Your task to perform on an android device: turn smart compose on in the gmail app Image 0: 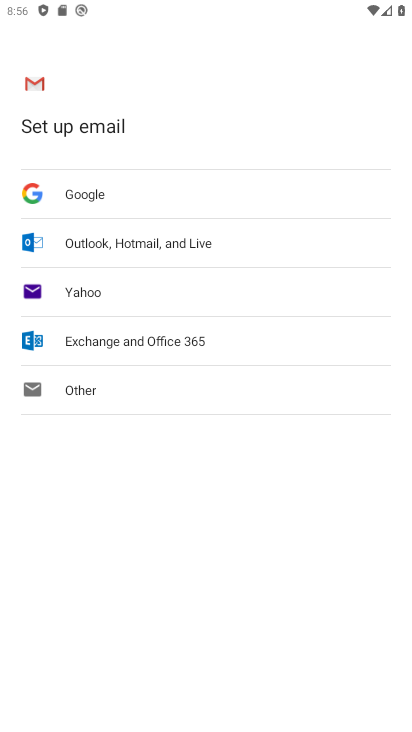
Step 0: press home button
Your task to perform on an android device: turn smart compose on in the gmail app Image 1: 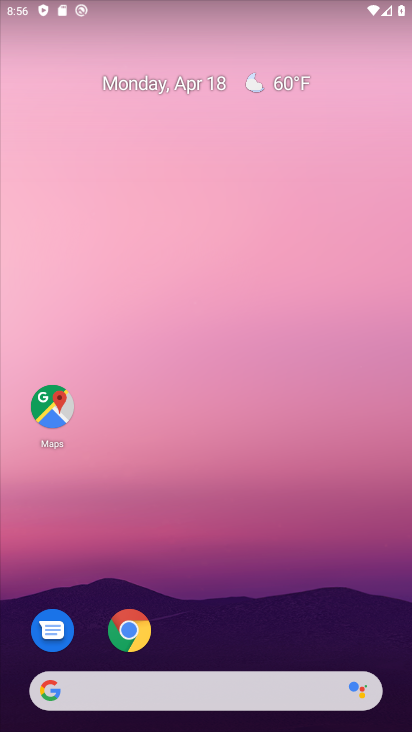
Step 1: drag from (283, 499) to (291, 140)
Your task to perform on an android device: turn smart compose on in the gmail app Image 2: 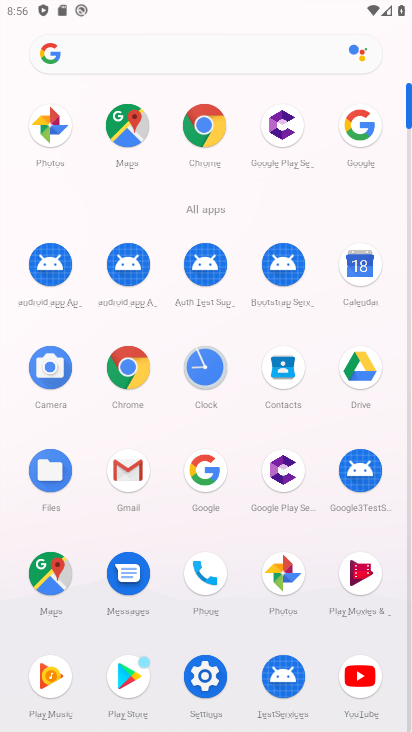
Step 2: click (135, 471)
Your task to perform on an android device: turn smart compose on in the gmail app Image 3: 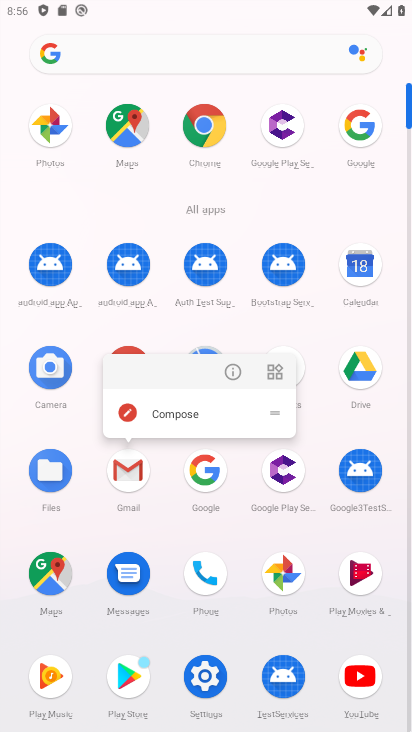
Step 3: click (128, 473)
Your task to perform on an android device: turn smart compose on in the gmail app Image 4: 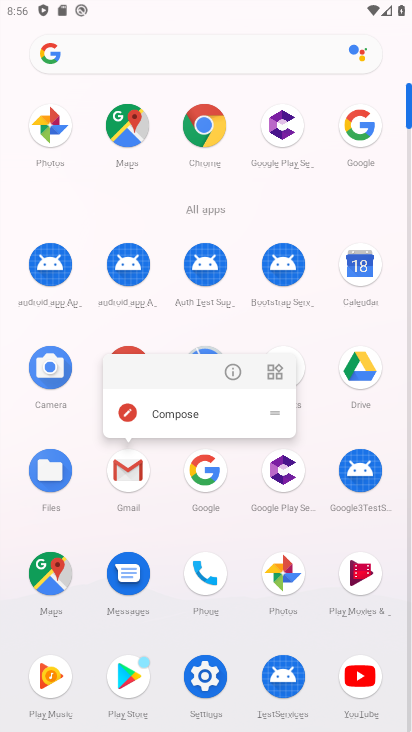
Step 4: click (132, 469)
Your task to perform on an android device: turn smart compose on in the gmail app Image 5: 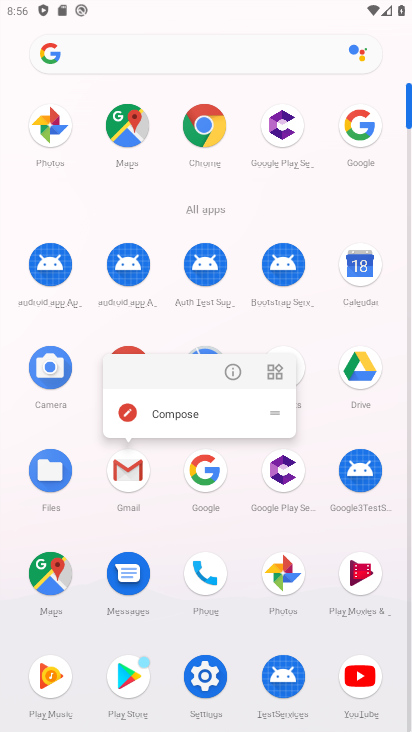
Step 5: click (163, 509)
Your task to perform on an android device: turn smart compose on in the gmail app Image 6: 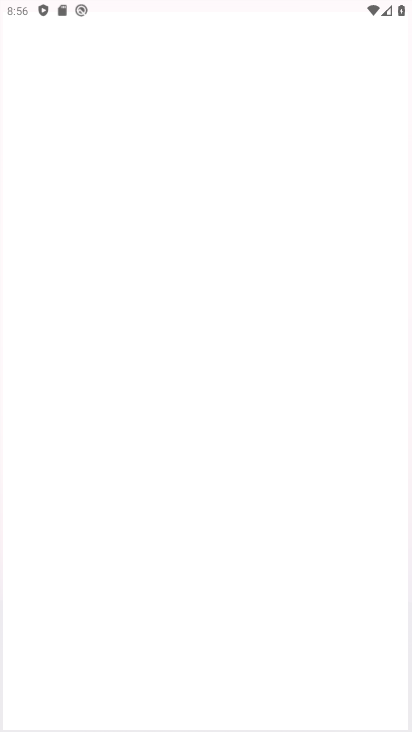
Step 6: click (133, 453)
Your task to perform on an android device: turn smart compose on in the gmail app Image 7: 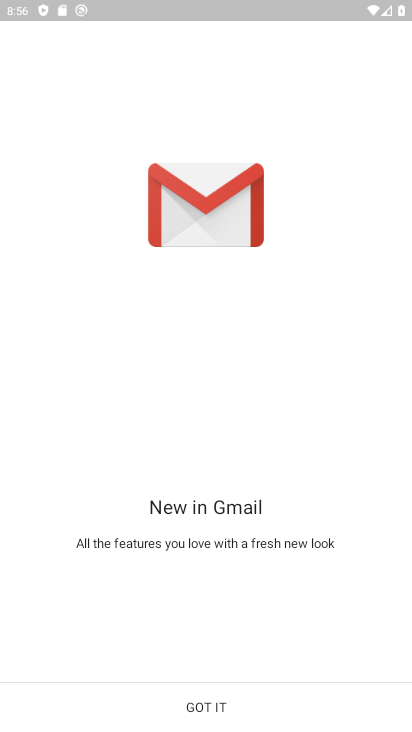
Step 7: click (296, 691)
Your task to perform on an android device: turn smart compose on in the gmail app Image 8: 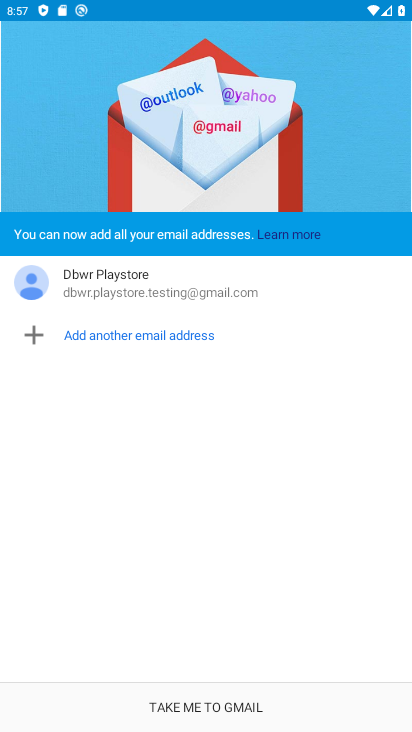
Step 8: click (291, 699)
Your task to perform on an android device: turn smart compose on in the gmail app Image 9: 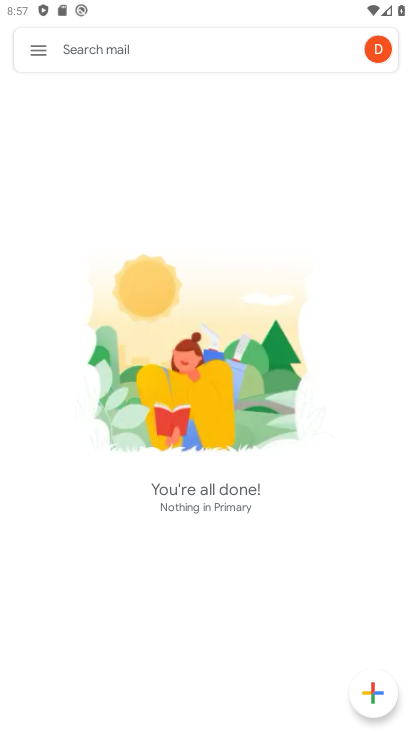
Step 9: click (46, 46)
Your task to perform on an android device: turn smart compose on in the gmail app Image 10: 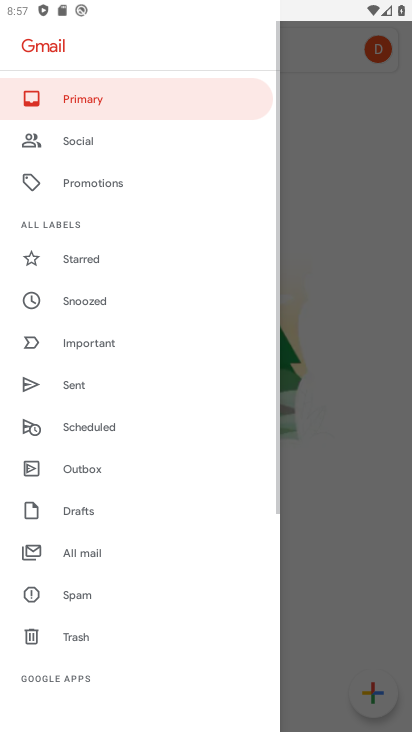
Step 10: drag from (126, 602) to (141, 73)
Your task to perform on an android device: turn smart compose on in the gmail app Image 11: 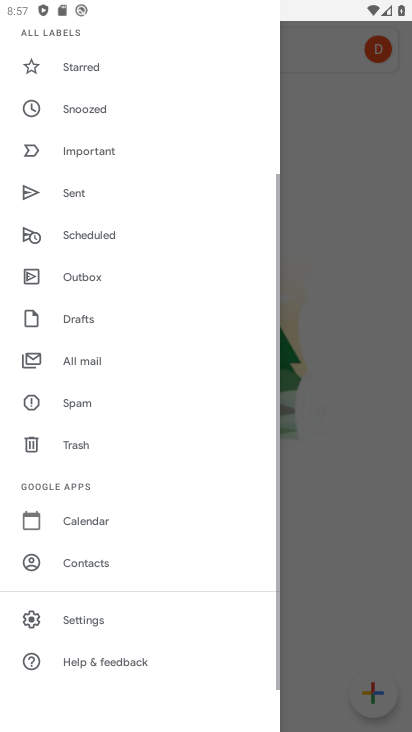
Step 11: click (74, 622)
Your task to perform on an android device: turn smart compose on in the gmail app Image 12: 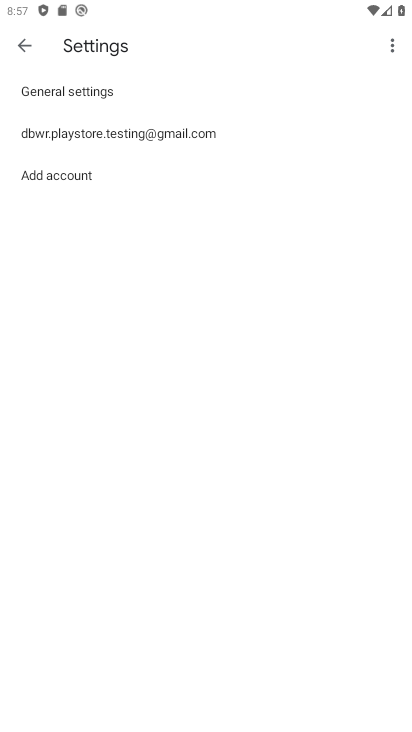
Step 12: click (141, 141)
Your task to perform on an android device: turn smart compose on in the gmail app Image 13: 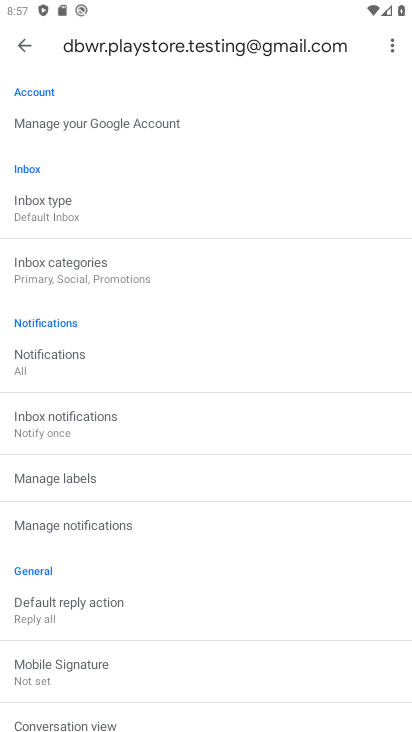
Step 13: task complete